Your task to perform on an android device: change the clock style Image 0: 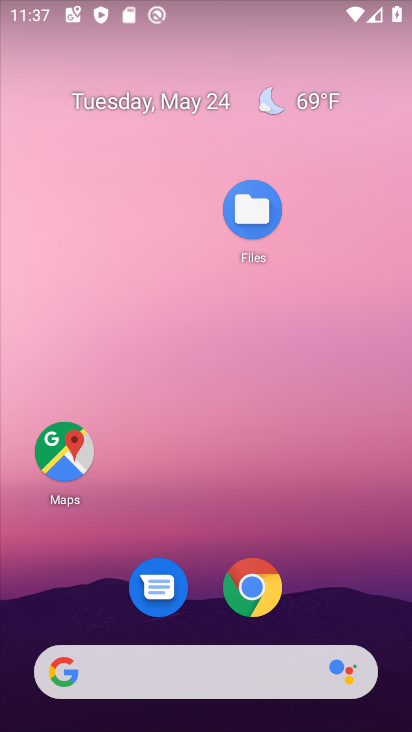
Step 0: drag from (336, 632) to (122, 284)
Your task to perform on an android device: change the clock style Image 1: 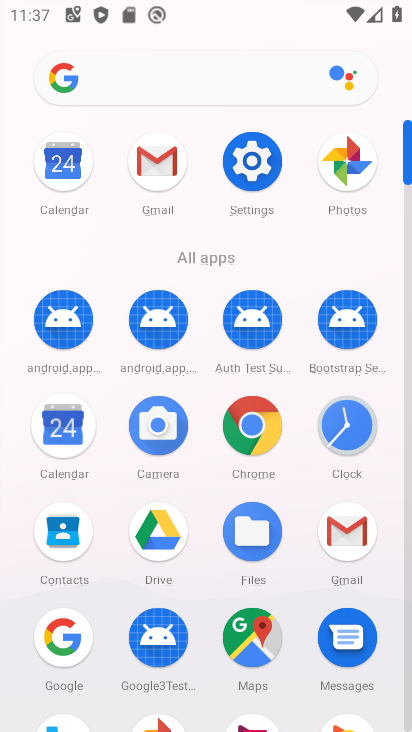
Step 1: click (356, 434)
Your task to perform on an android device: change the clock style Image 2: 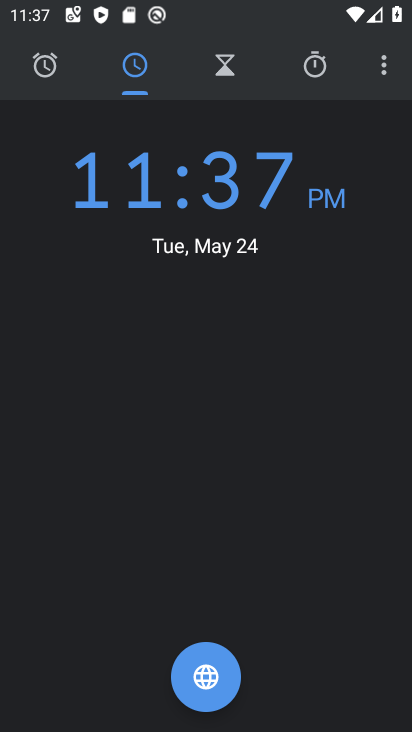
Step 2: click (385, 73)
Your task to perform on an android device: change the clock style Image 3: 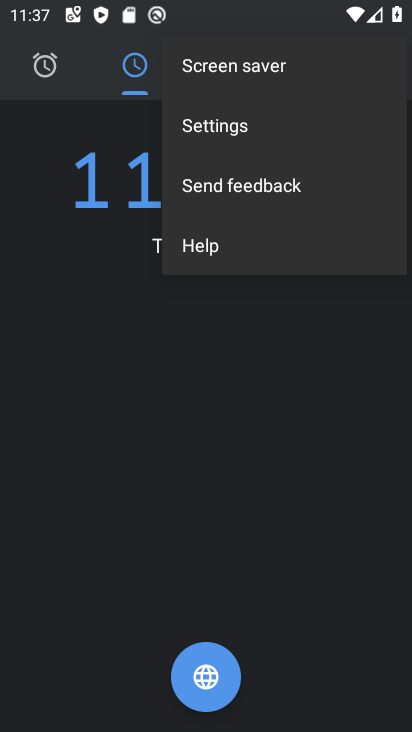
Step 3: click (238, 123)
Your task to perform on an android device: change the clock style Image 4: 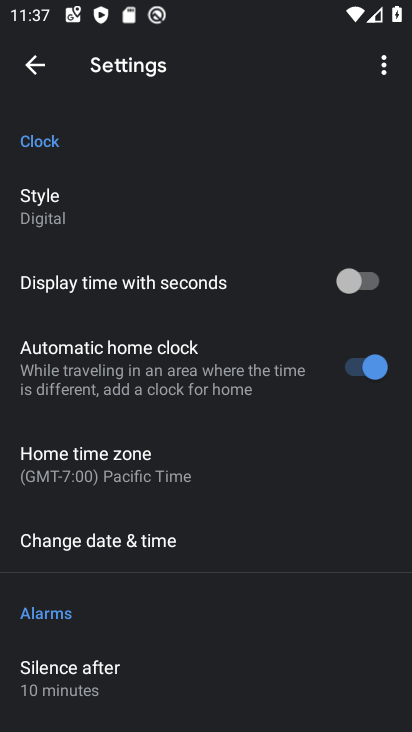
Step 4: click (55, 218)
Your task to perform on an android device: change the clock style Image 5: 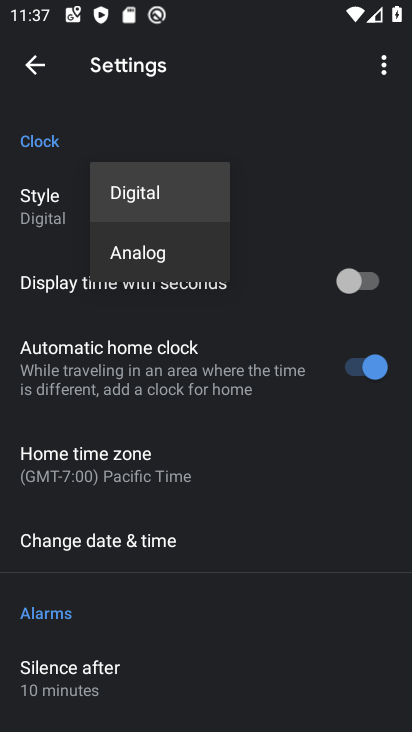
Step 5: click (122, 256)
Your task to perform on an android device: change the clock style Image 6: 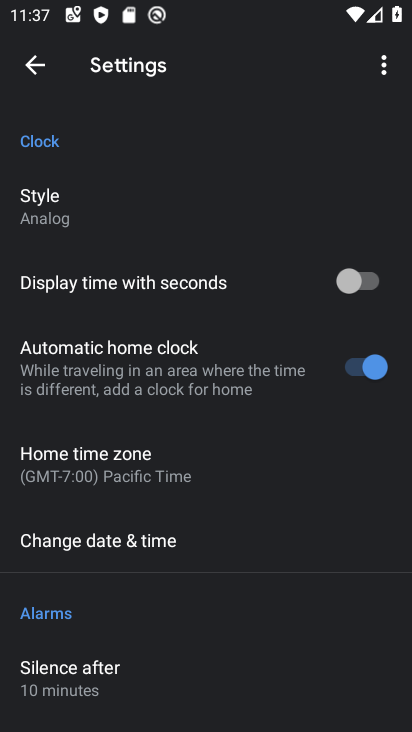
Step 6: task complete